Your task to perform on an android device: Add "alienware aurora" to the cart on amazon.com, then select checkout. Image 0: 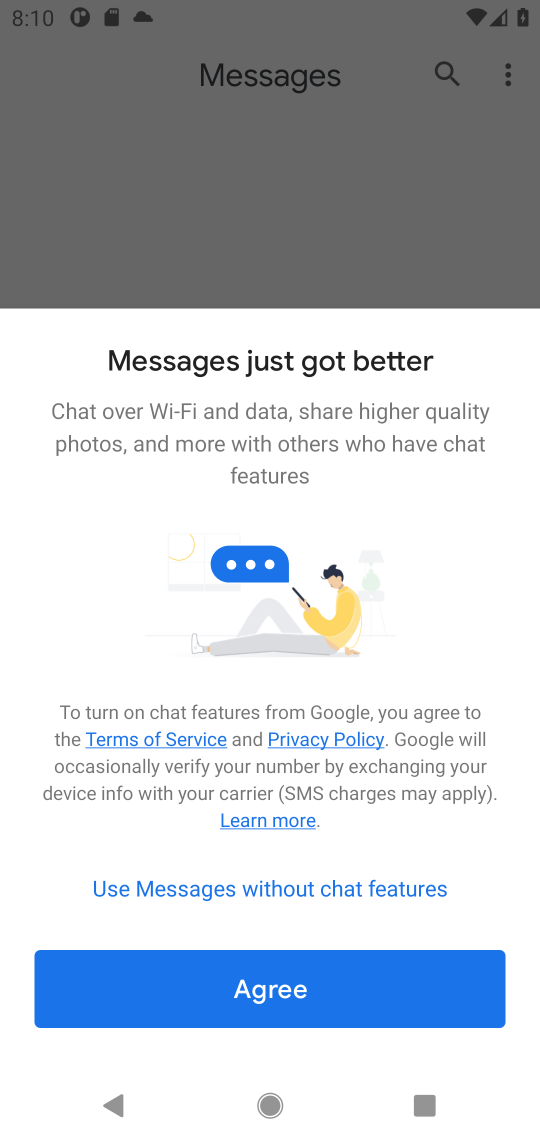
Step 0: press home button
Your task to perform on an android device: Add "alienware aurora" to the cart on amazon.com, then select checkout. Image 1: 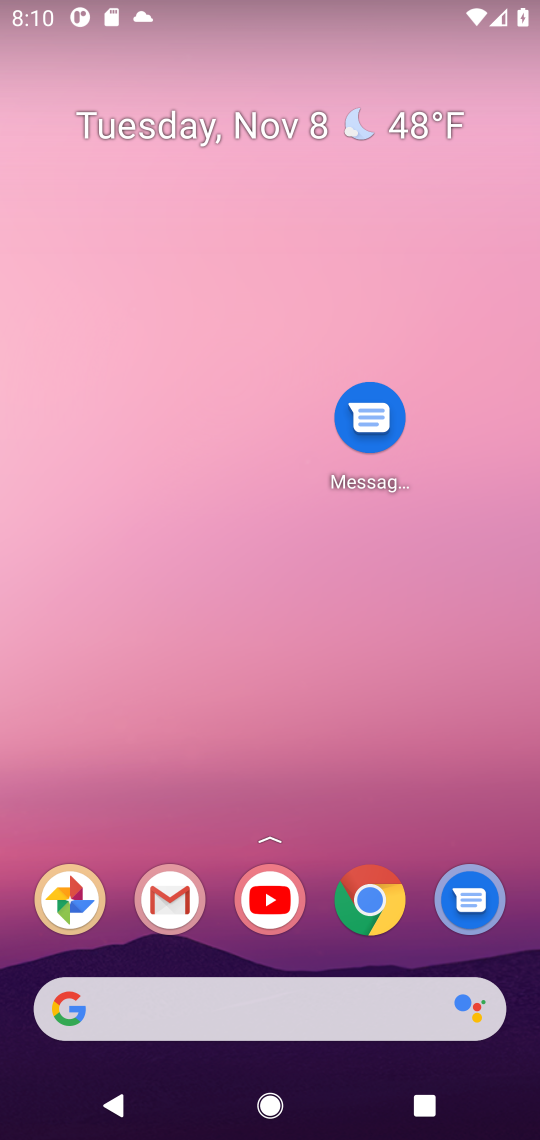
Step 1: drag from (197, 1018) to (277, 295)
Your task to perform on an android device: Add "alienware aurora" to the cart on amazon.com, then select checkout. Image 2: 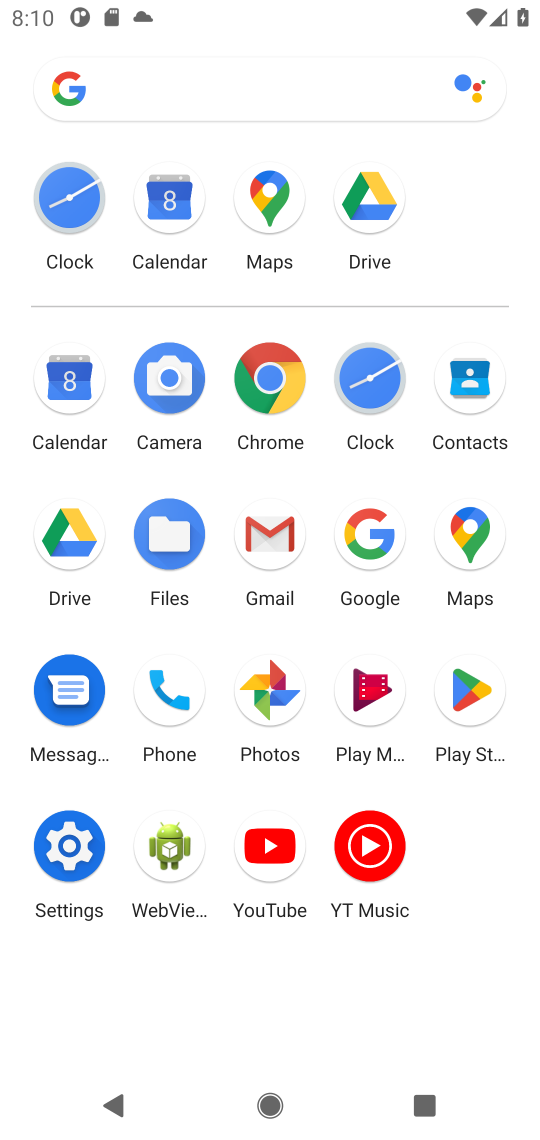
Step 2: click (359, 541)
Your task to perform on an android device: Add "alienware aurora" to the cart on amazon.com, then select checkout. Image 3: 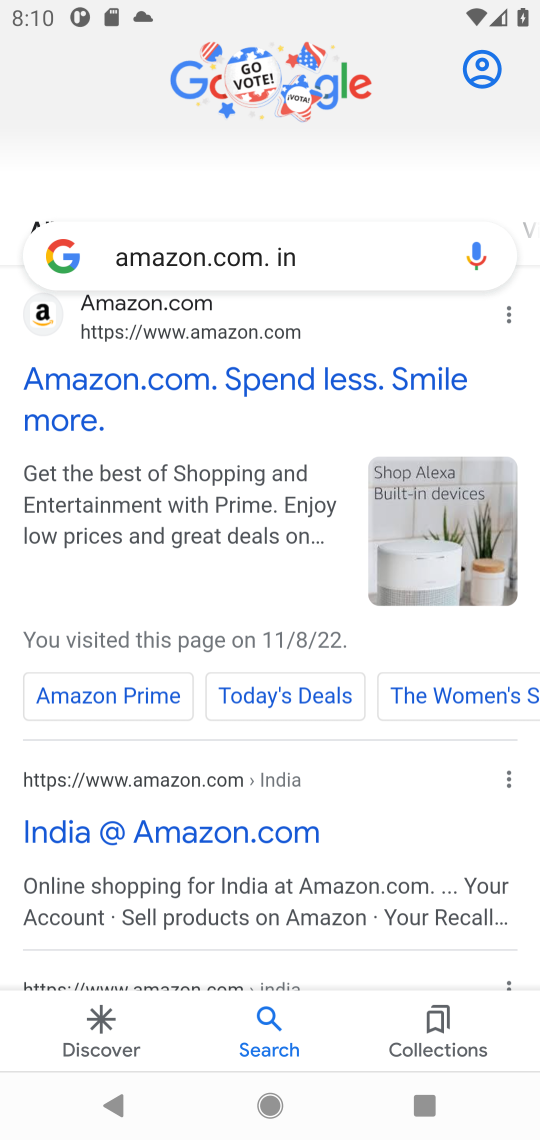
Step 3: click (50, 316)
Your task to perform on an android device: Add "alienware aurora" to the cart on amazon.com, then select checkout. Image 4: 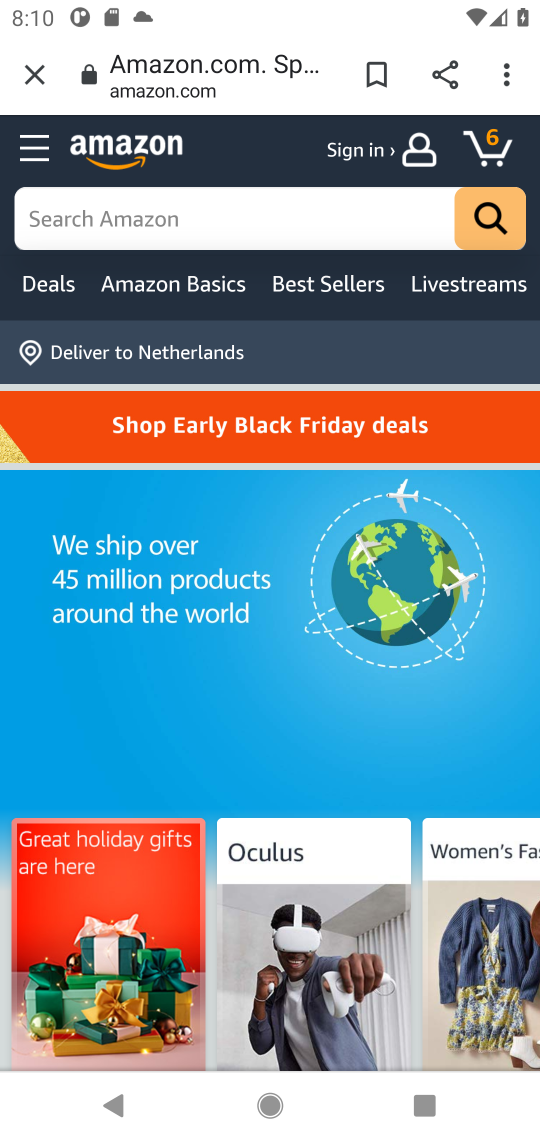
Step 4: click (248, 216)
Your task to perform on an android device: Add "alienware aurora" to the cart on amazon.com, then select checkout. Image 5: 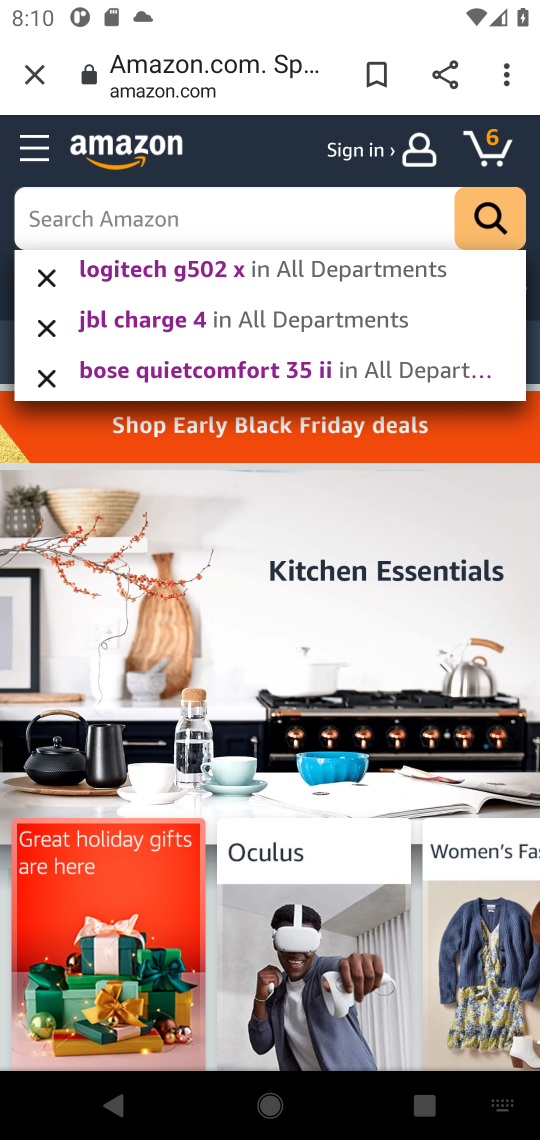
Step 5: type "alienware aurora "
Your task to perform on an android device: Add "alienware aurora" to the cart on amazon.com, then select checkout. Image 6: 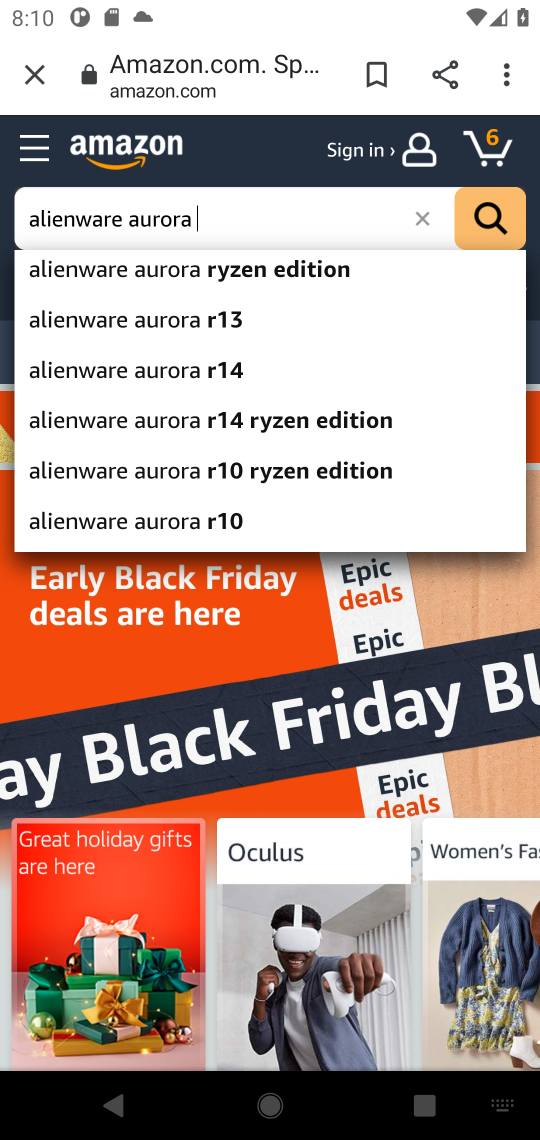
Step 6: click (221, 311)
Your task to perform on an android device: Add "alienware aurora" to the cart on amazon.com, then select checkout. Image 7: 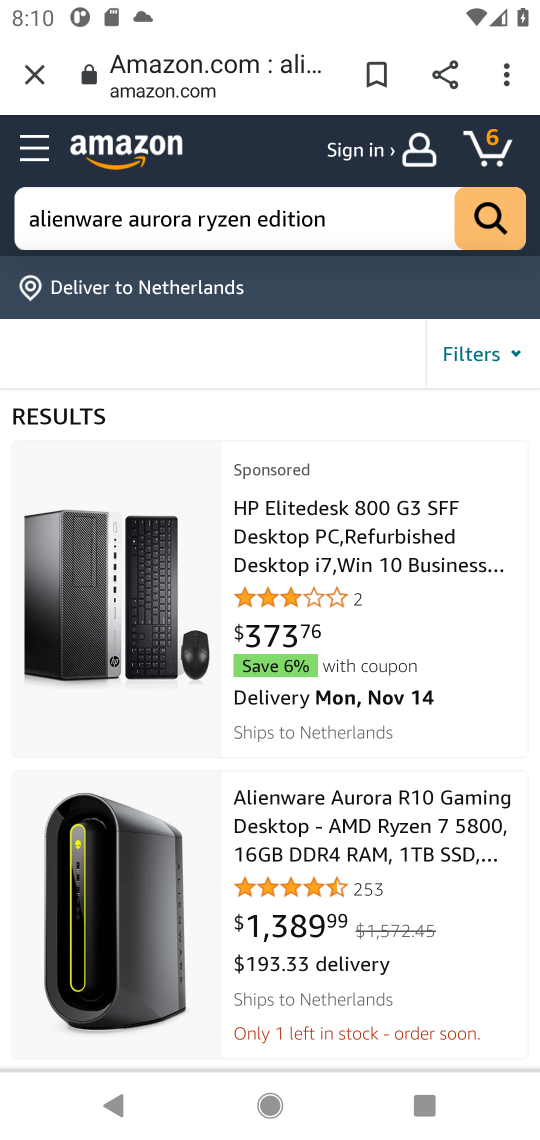
Step 7: click (411, 831)
Your task to perform on an android device: Add "alienware aurora" to the cart on amazon.com, then select checkout. Image 8: 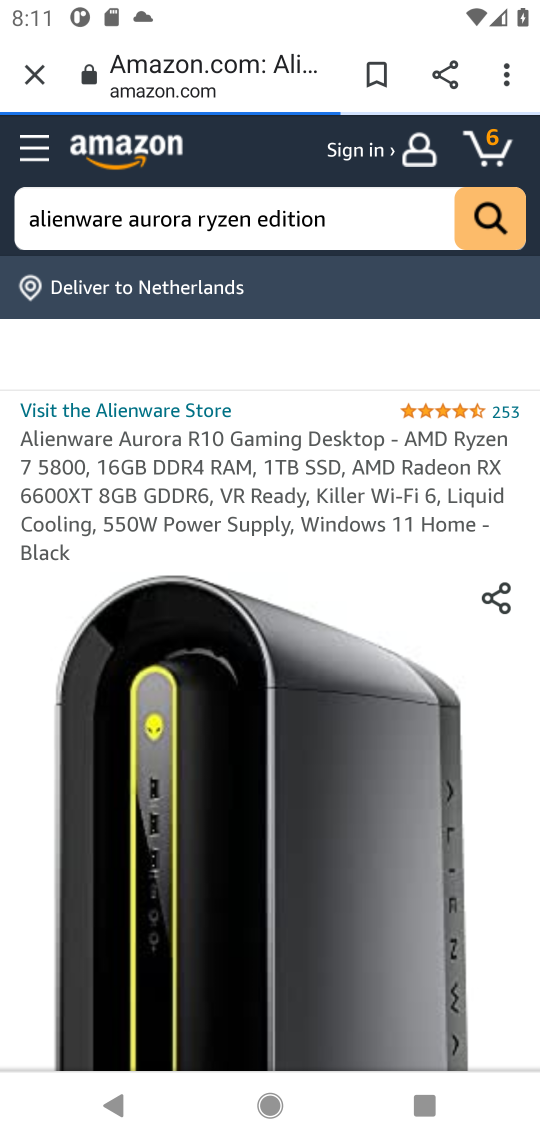
Step 8: drag from (320, 851) to (377, 200)
Your task to perform on an android device: Add "alienware aurora" to the cart on amazon.com, then select checkout. Image 9: 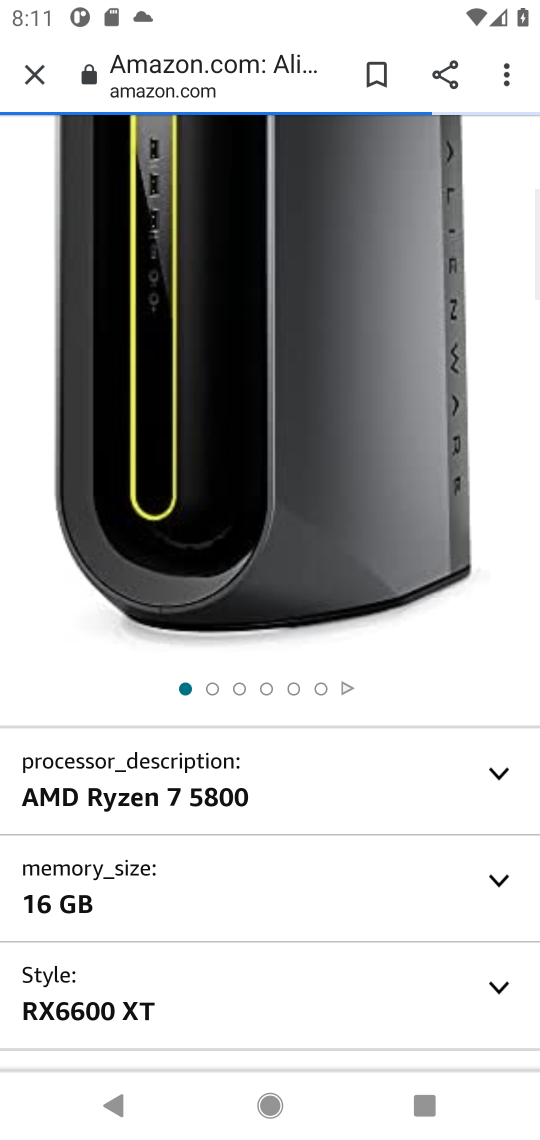
Step 9: drag from (328, 847) to (382, 169)
Your task to perform on an android device: Add "alienware aurora" to the cart on amazon.com, then select checkout. Image 10: 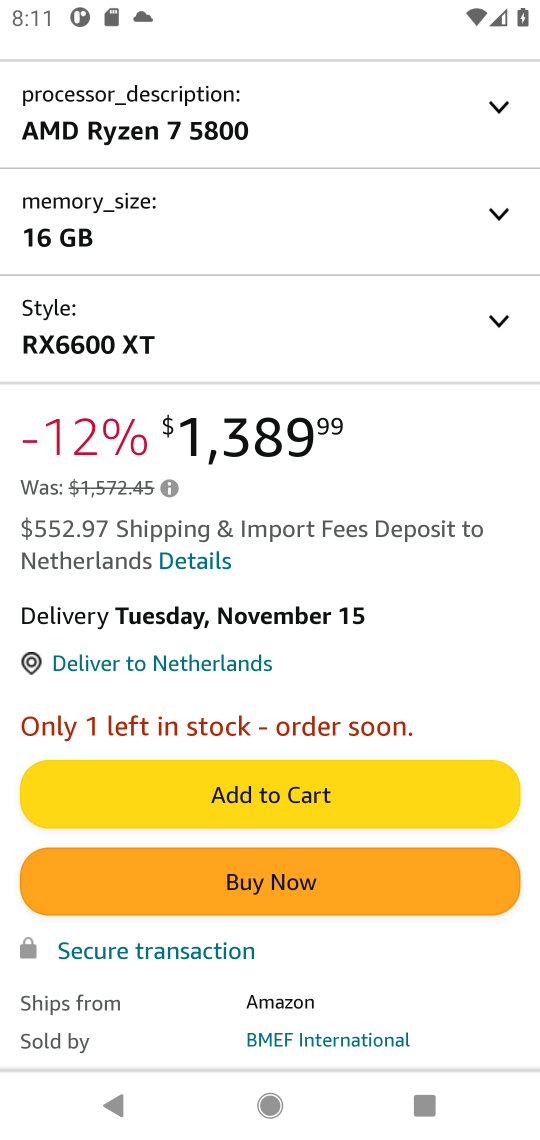
Step 10: click (295, 778)
Your task to perform on an android device: Add "alienware aurora" to the cart on amazon.com, then select checkout. Image 11: 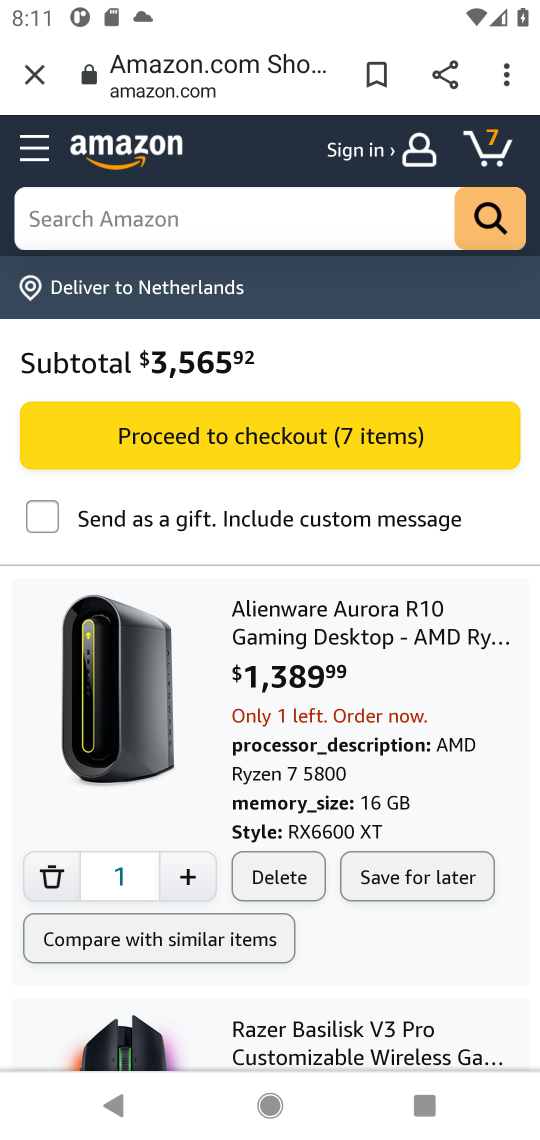
Step 11: task complete